Your task to perform on an android device: allow cookies in the chrome app Image 0: 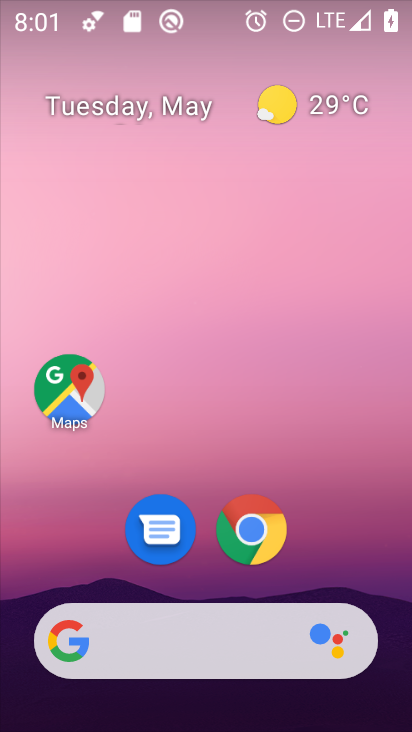
Step 0: drag from (399, 620) to (321, 44)
Your task to perform on an android device: allow cookies in the chrome app Image 1: 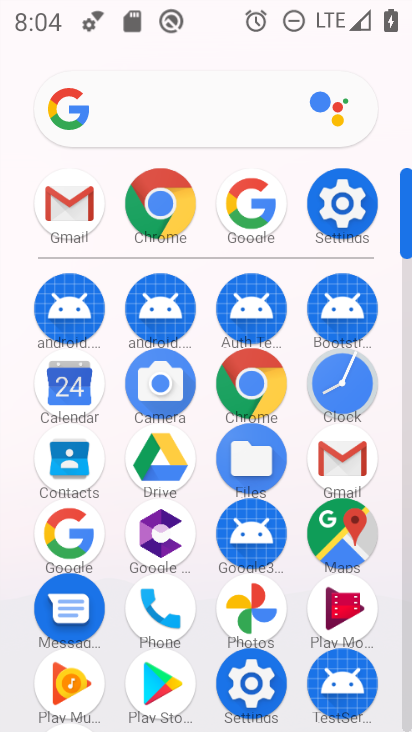
Step 1: click (262, 376)
Your task to perform on an android device: allow cookies in the chrome app Image 2: 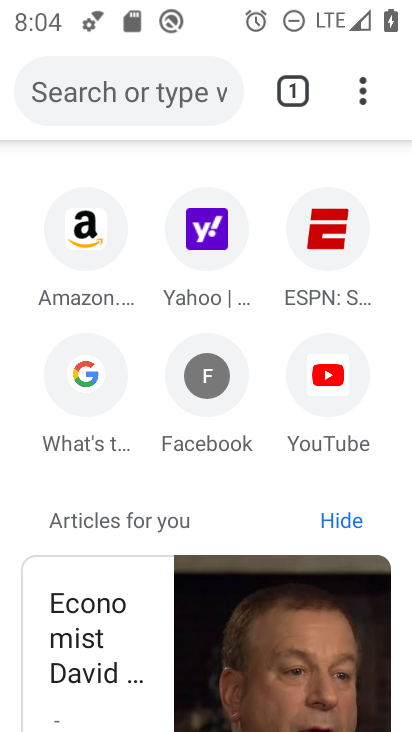
Step 2: click (360, 84)
Your task to perform on an android device: allow cookies in the chrome app Image 3: 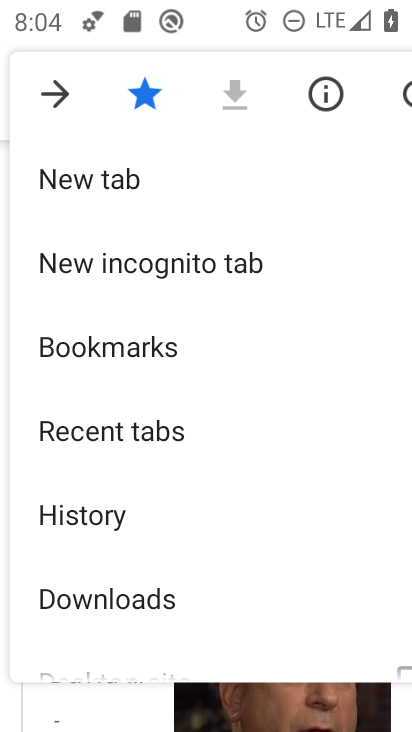
Step 3: click (125, 519)
Your task to perform on an android device: allow cookies in the chrome app Image 4: 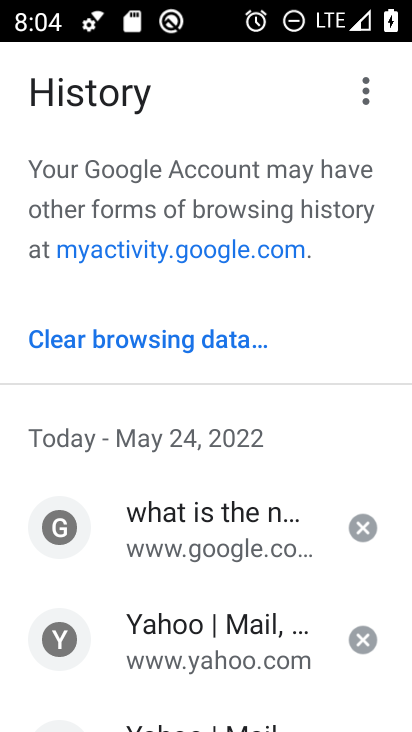
Step 4: click (159, 358)
Your task to perform on an android device: allow cookies in the chrome app Image 5: 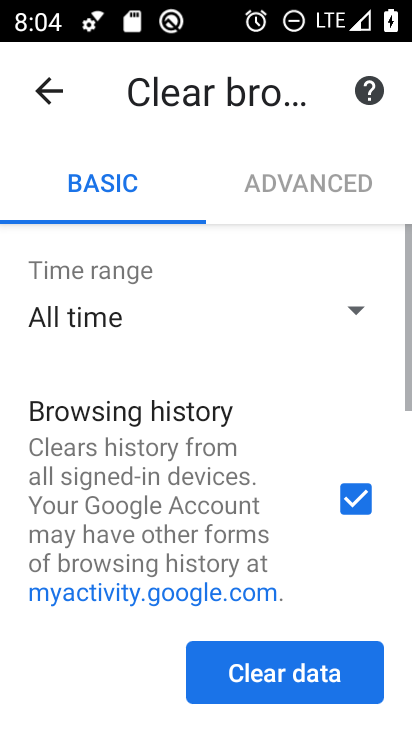
Step 5: task complete